Your task to perform on an android device: change the clock display to analog Image 0: 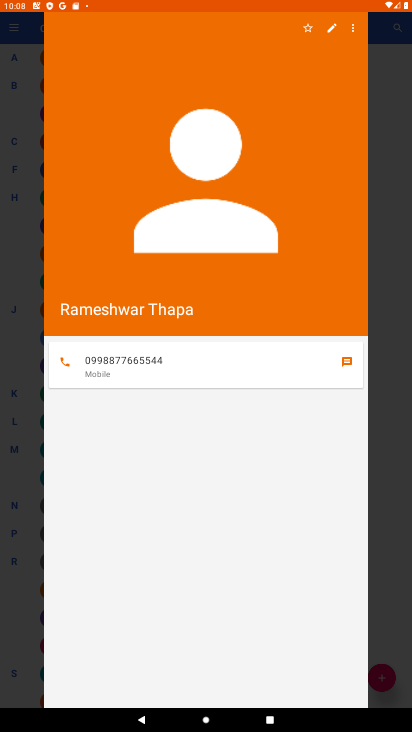
Step 0: press home button
Your task to perform on an android device: change the clock display to analog Image 1: 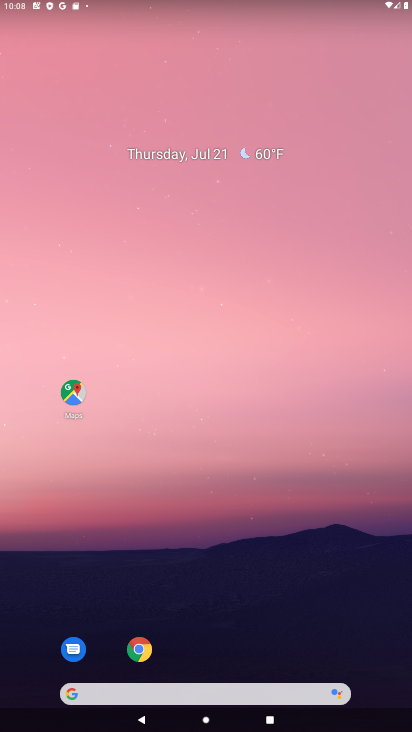
Step 1: drag from (213, 690) to (147, 177)
Your task to perform on an android device: change the clock display to analog Image 2: 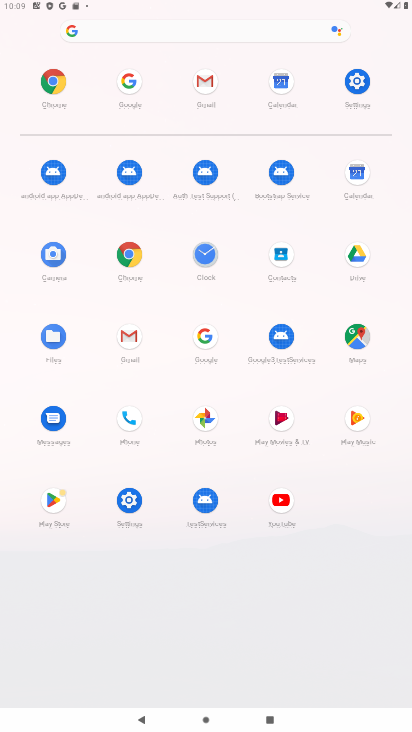
Step 2: click (205, 257)
Your task to perform on an android device: change the clock display to analog Image 3: 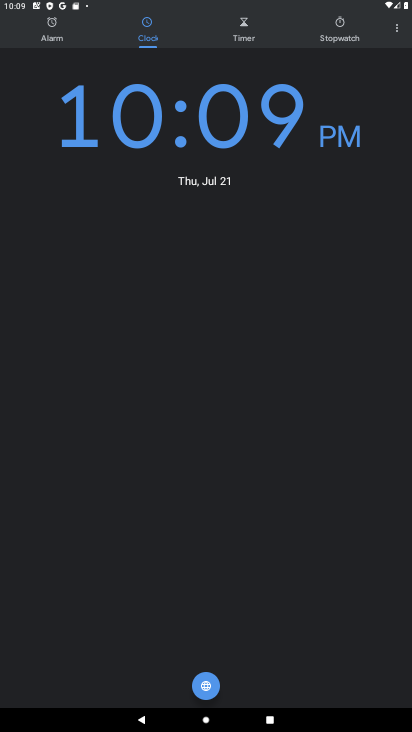
Step 3: click (397, 31)
Your task to perform on an android device: change the clock display to analog Image 4: 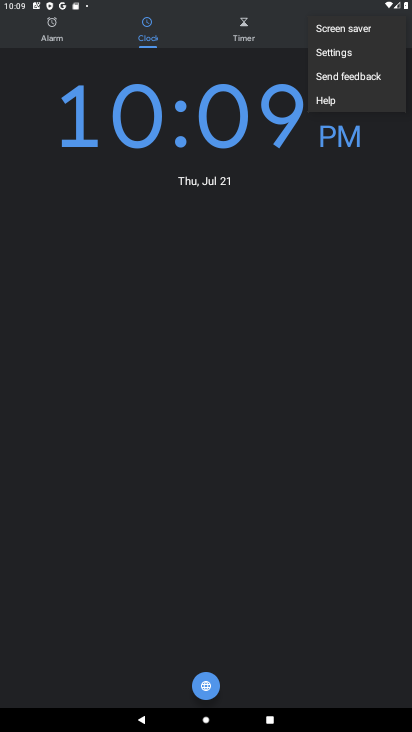
Step 4: click (333, 52)
Your task to perform on an android device: change the clock display to analog Image 5: 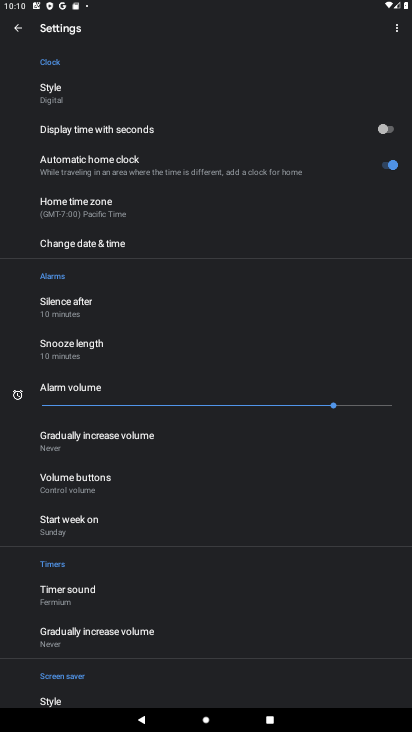
Step 5: click (54, 100)
Your task to perform on an android device: change the clock display to analog Image 6: 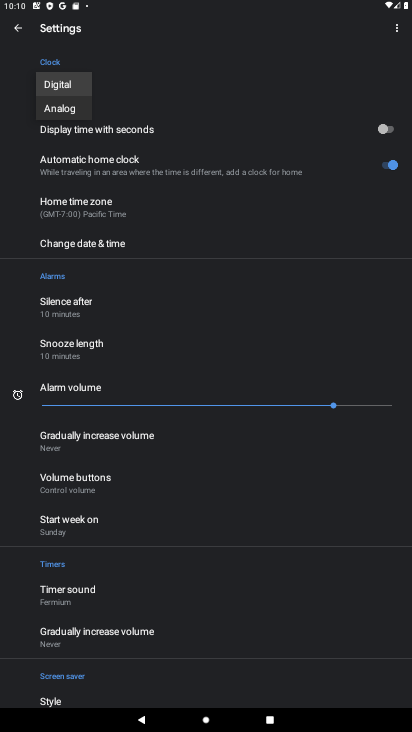
Step 6: click (71, 109)
Your task to perform on an android device: change the clock display to analog Image 7: 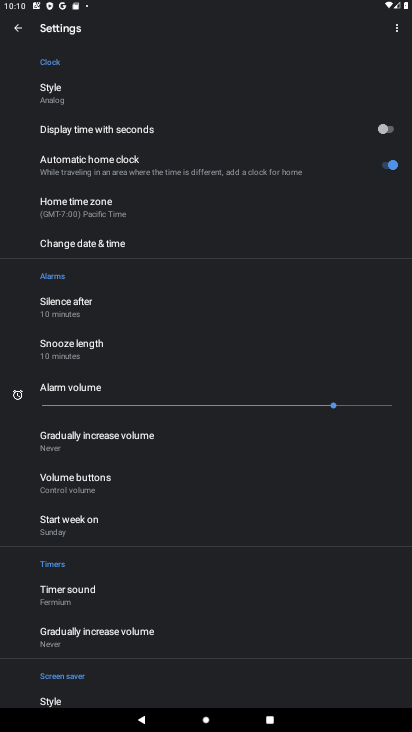
Step 7: task complete